Your task to perform on an android device: Open the phone app and click the voicemail tab. Image 0: 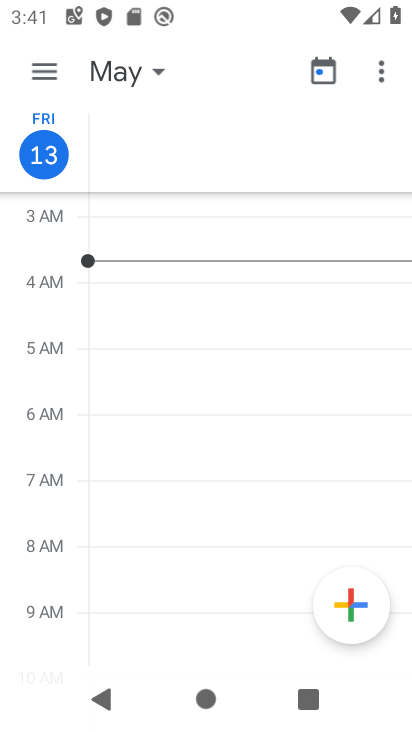
Step 0: press home button
Your task to perform on an android device: Open the phone app and click the voicemail tab. Image 1: 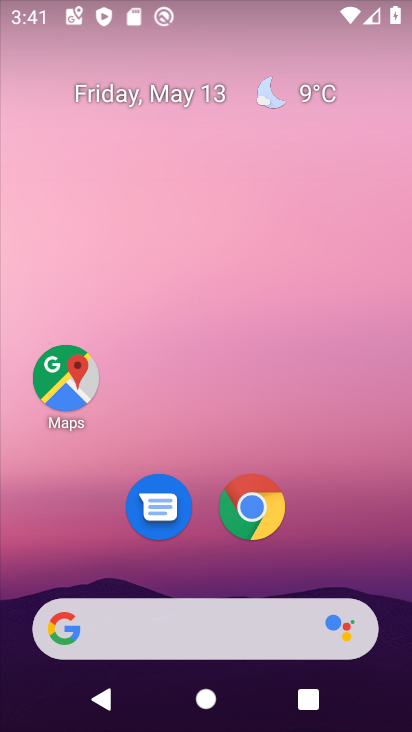
Step 1: drag from (362, 550) to (280, 0)
Your task to perform on an android device: Open the phone app and click the voicemail tab. Image 2: 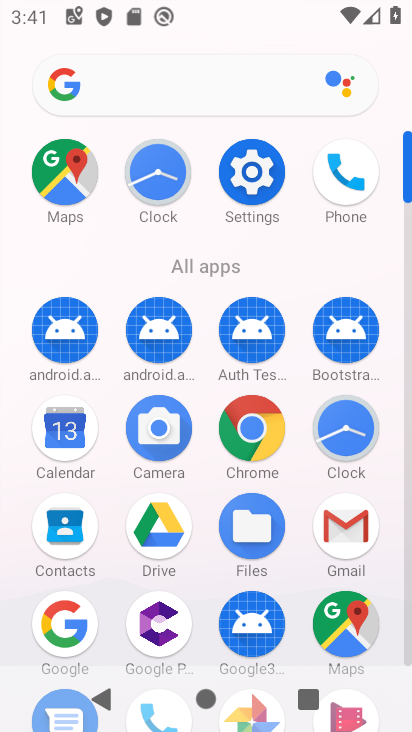
Step 2: click (354, 171)
Your task to perform on an android device: Open the phone app and click the voicemail tab. Image 3: 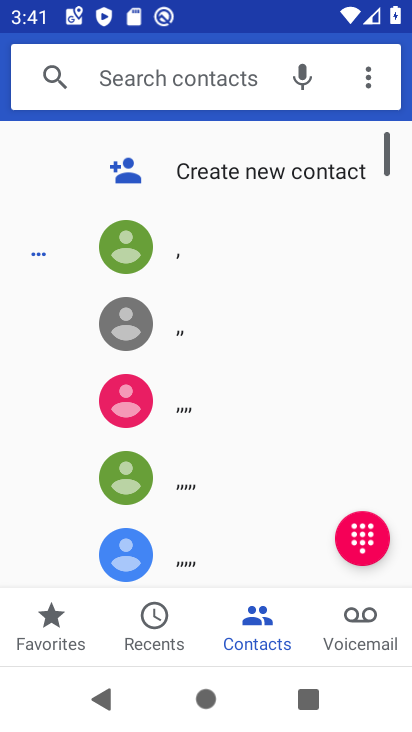
Step 3: click (378, 632)
Your task to perform on an android device: Open the phone app and click the voicemail tab. Image 4: 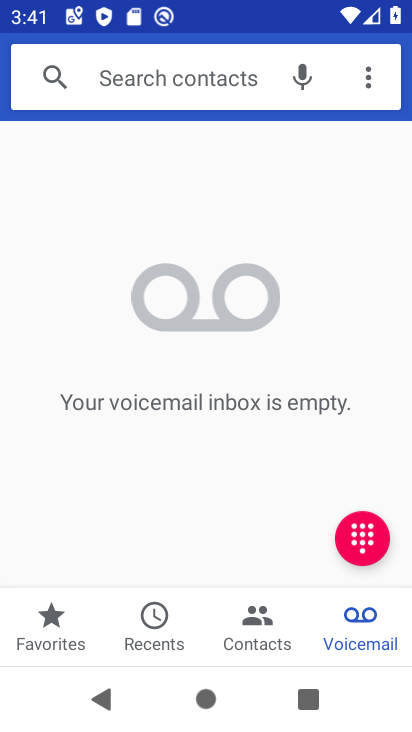
Step 4: task complete